Your task to perform on an android device: Go to Google Image 0: 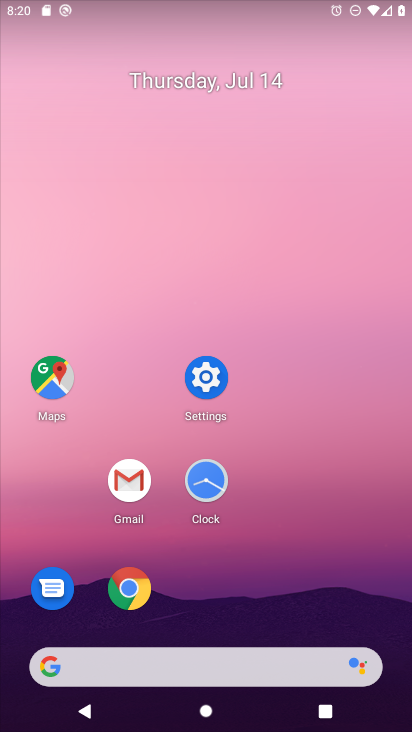
Step 0: drag from (391, 696) to (352, 93)
Your task to perform on an android device: Go to Google Image 1: 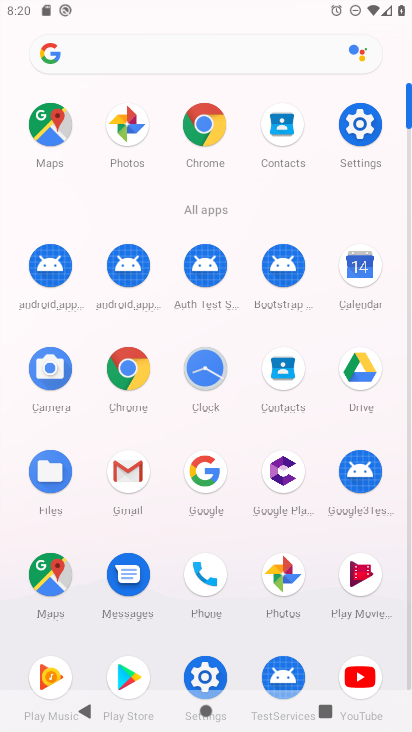
Step 1: click (206, 478)
Your task to perform on an android device: Go to Google Image 2: 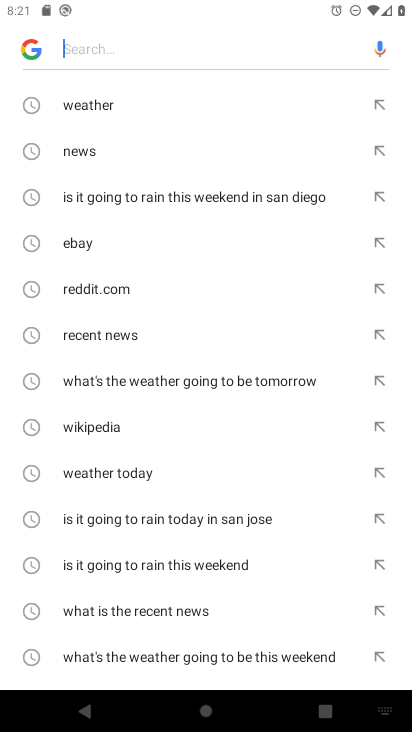
Step 2: type "Google"
Your task to perform on an android device: Go to Google Image 3: 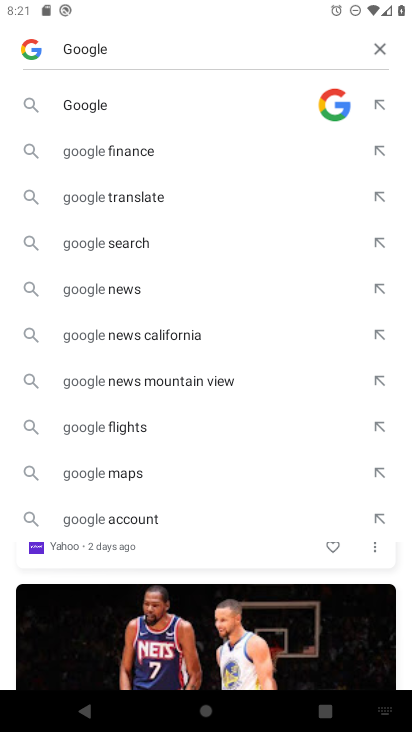
Step 3: click (85, 105)
Your task to perform on an android device: Go to Google Image 4: 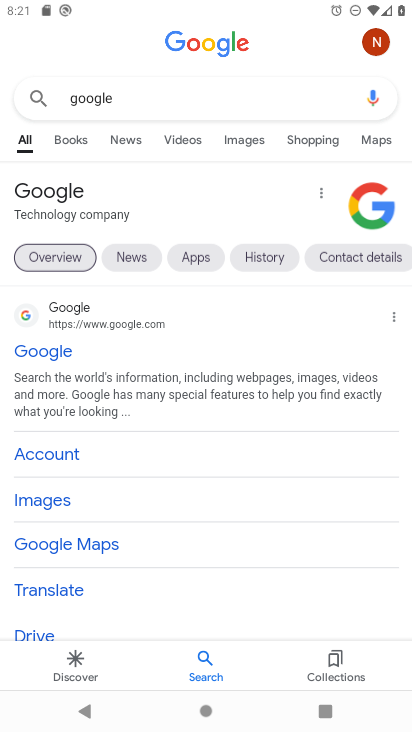
Step 4: task complete